Your task to perform on an android device: Search for pizza restaurants on Maps Image 0: 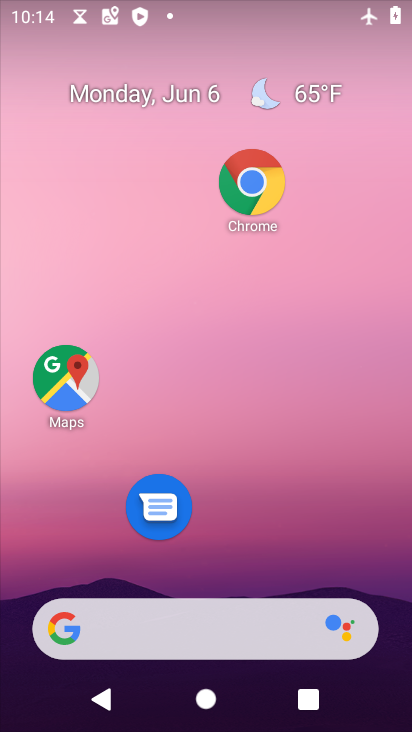
Step 0: click (66, 358)
Your task to perform on an android device: Search for pizza restaurants on Maps Image 1: 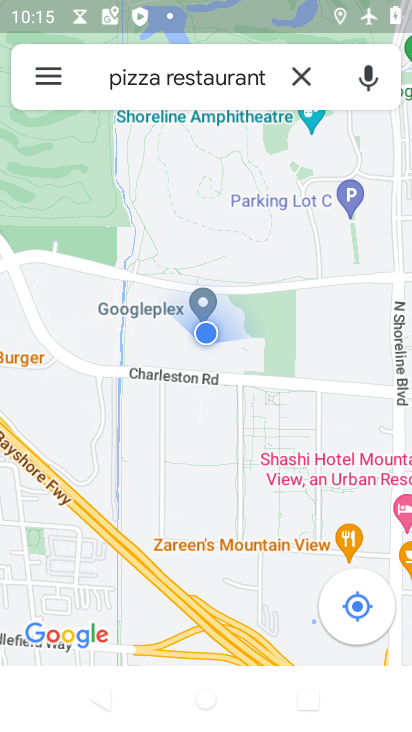
Step 1: task complete